Your task to perform on an android device: Search for 12ft 120W LED tube light on home depot Image 0: 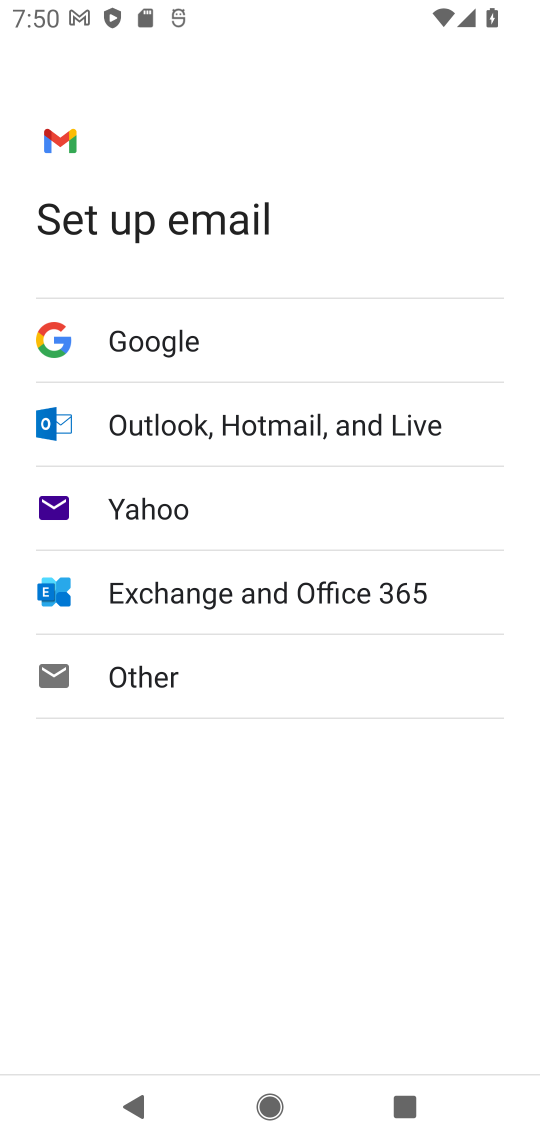
Step 0: press home button
Your task to perform on an android device: Search for 12ft 120W LED tube light on home depot Image 1: 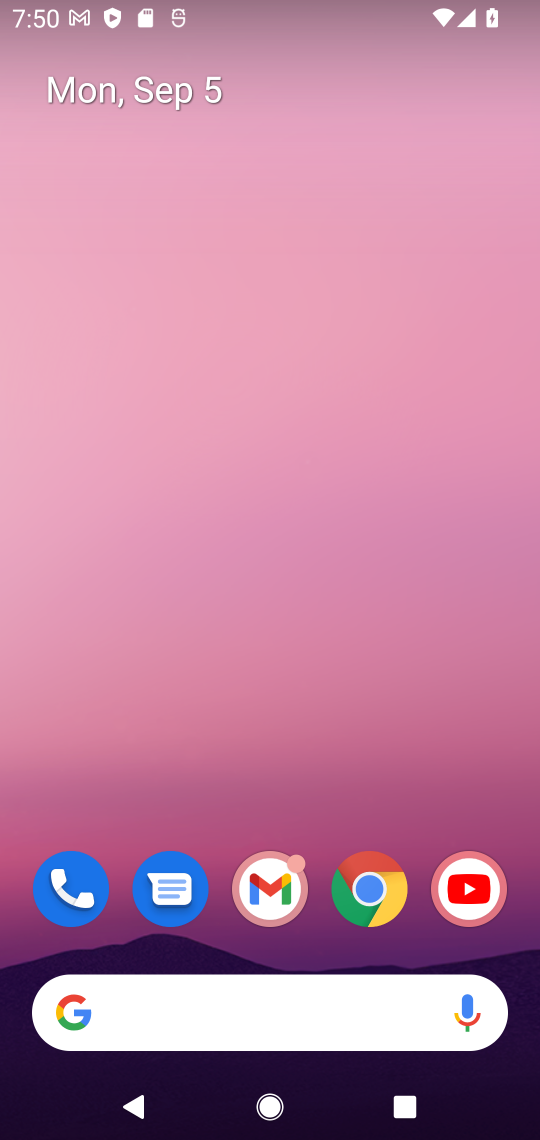
Step 1: click (287, 1022)
Your task to perform on an android device: Search for 12ft 120W LED tube light on home depot Image 2: 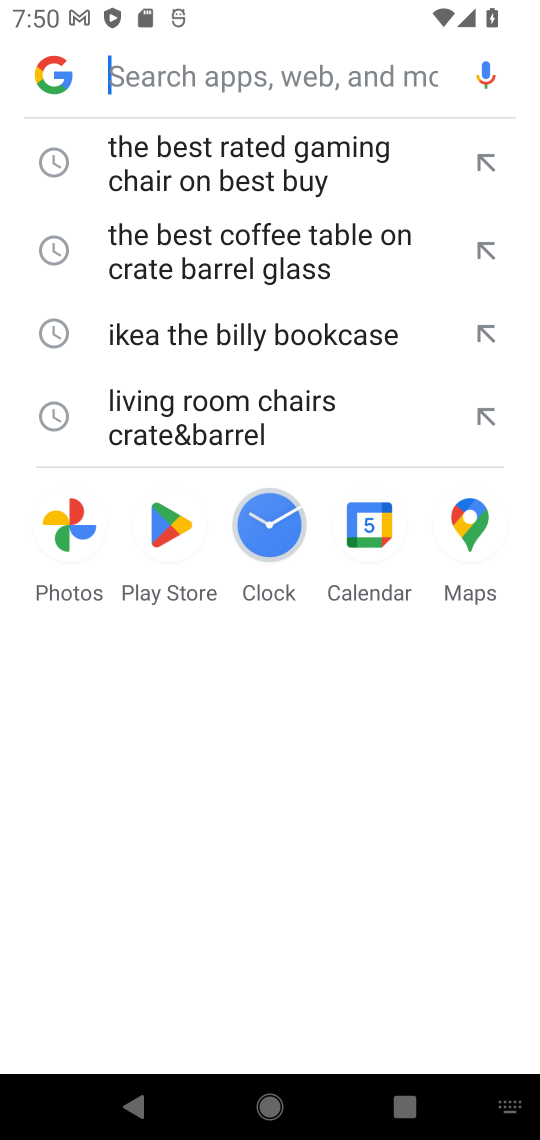
Step 2: type " 12ft 120W LED tube light on home depot"
Your task to perform on an android device: Search for 12ft 120W LED tube light on home depot Image 3: 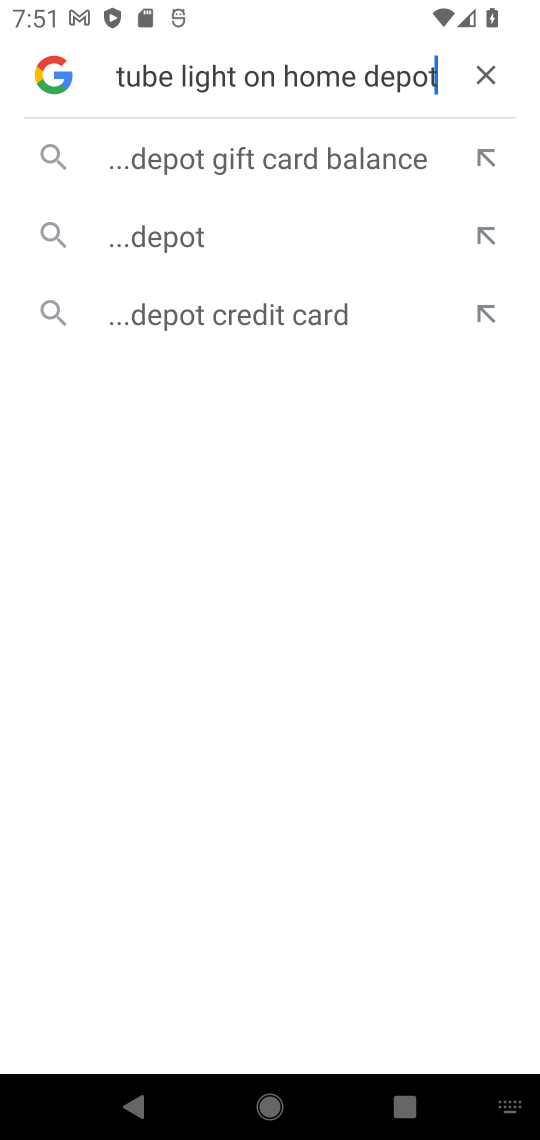
Step 3: click (327, 174)
Your task to perform on an android device: Search for 12ft 120W LED tube light on home depot Image 4: 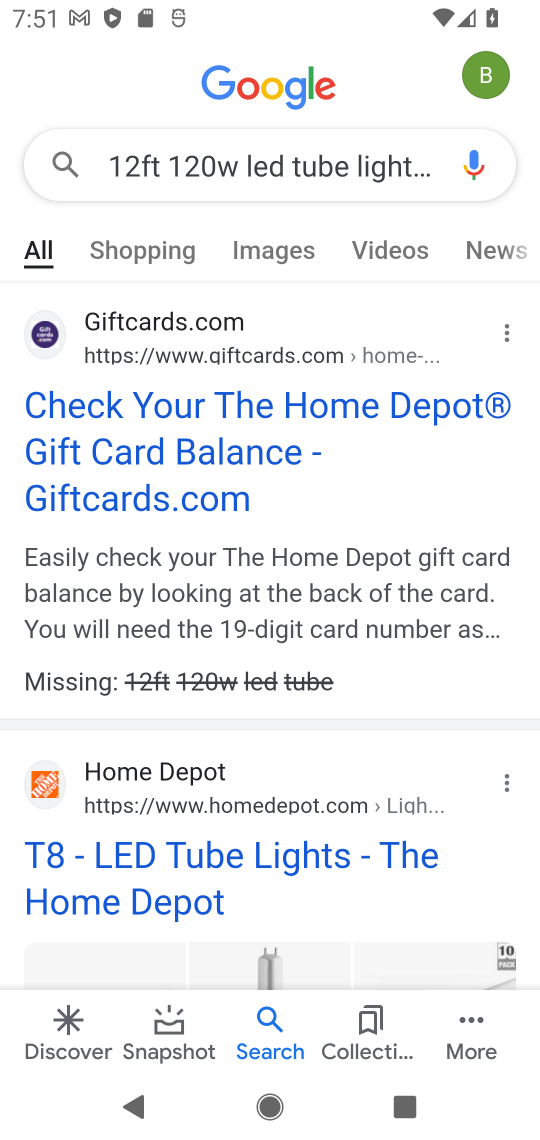
Step 4: task complete